Your task to perform on an android device: Search for vegetarian restaurants on Maps Image 0: 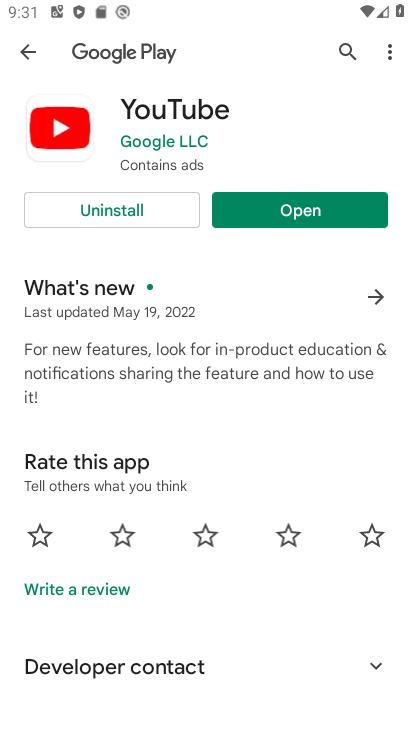
Step 0: press home button
Your task to perform on an android device: Search for vegetarian restaurants on Maps Image 1: 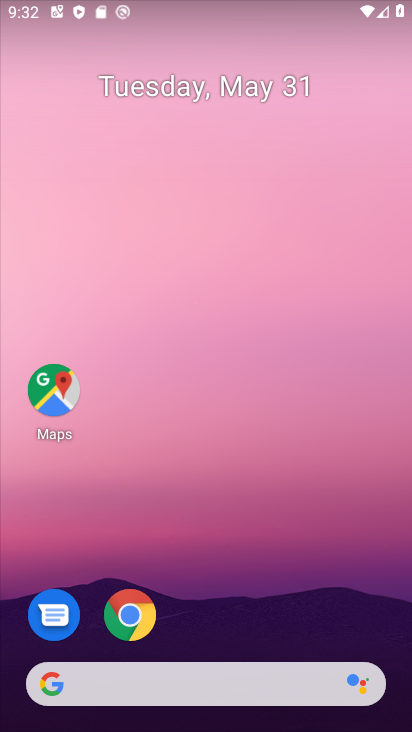
Step 1: click (55, 389)
Your task to perform on an android device: Search for vegetarian restaurants on Maps Image 2: 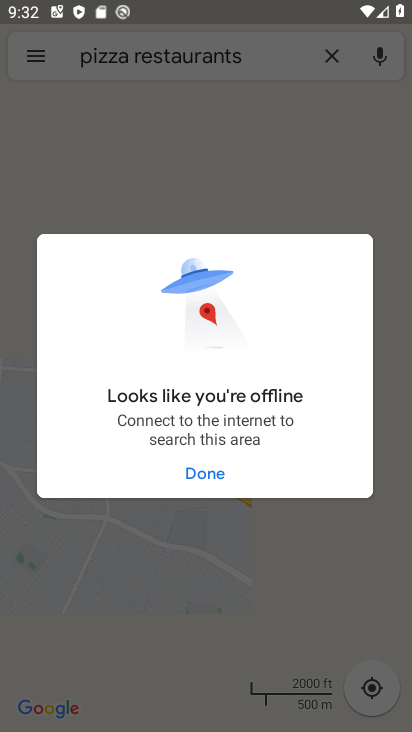
Step 2: click (212, 464)
Your task to perform on an android device: Search for vegetarian restaurants on Maps Image 3: 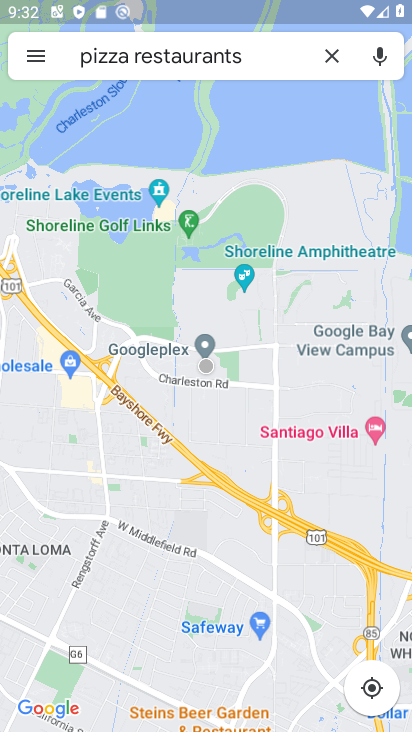
Step 3: press home button
Your task to perform on an android device: Search for vegetarian restaurants on Maps Image 4: 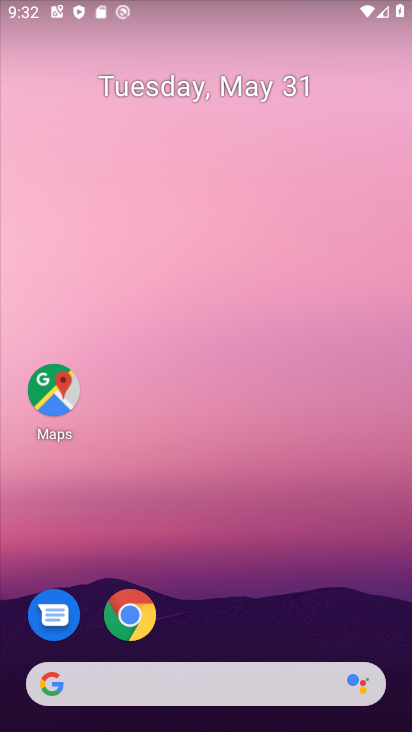
Step 4: drag from (280, 625) to (272, 117)
Your task to perform on an android device: Search for vegetarian restaurants on Maps Image 5: 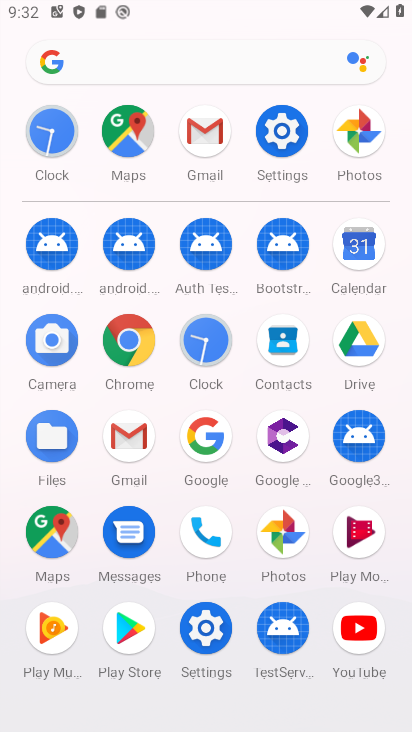
Step 5: click (207, 628)
Your task to perform on an android device: Search for vegetarian restaurants on Maps Image 6: 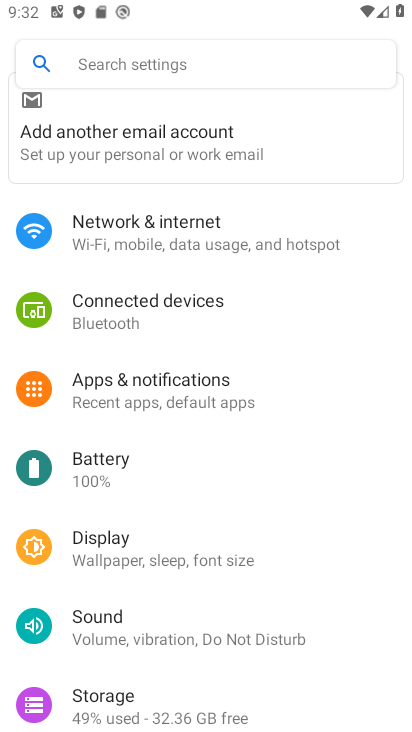
Step 6: click (160, 222)
Your task to perform on an android device: Search for vegetarian restaurants on Maps Image 7: 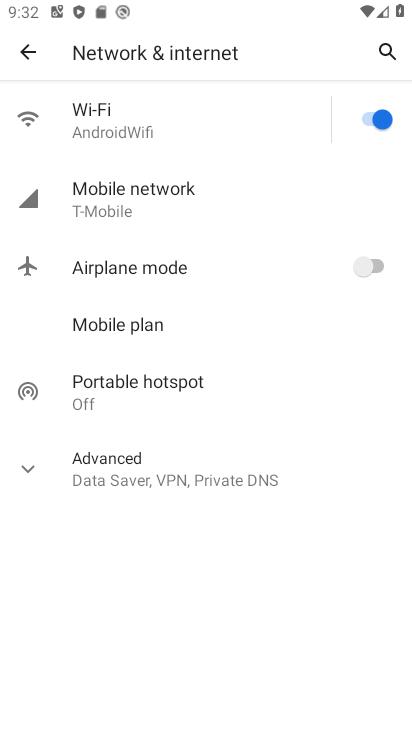
Step 7: press home button
Your task to perform on an android device: Search for vegetarian restaurants on Maps Image 8: 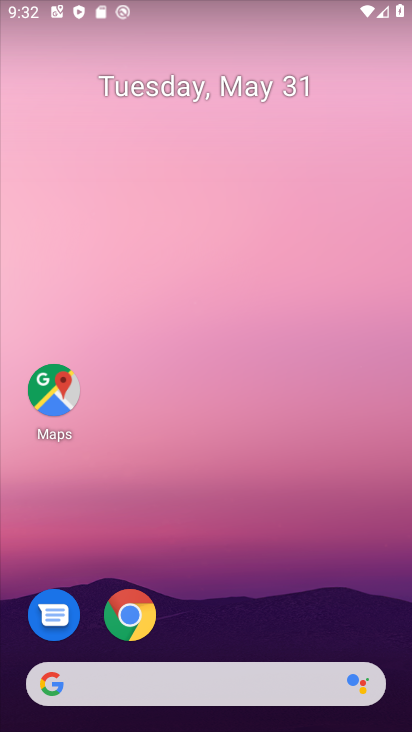
Step 8: click (60, 391)
Your task to perform on an android device: Search for vegetarian restaurants on Maps Image 9: 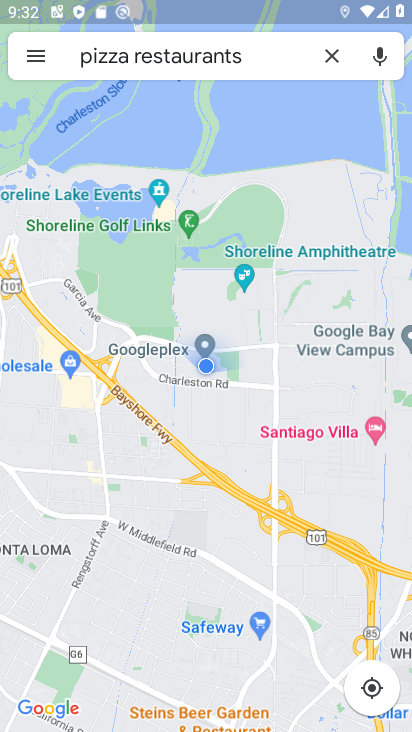
Step 9: click (329, 54)
Your task to perform on an android device: Search for vegetarian restaurants on Maps Image 10: 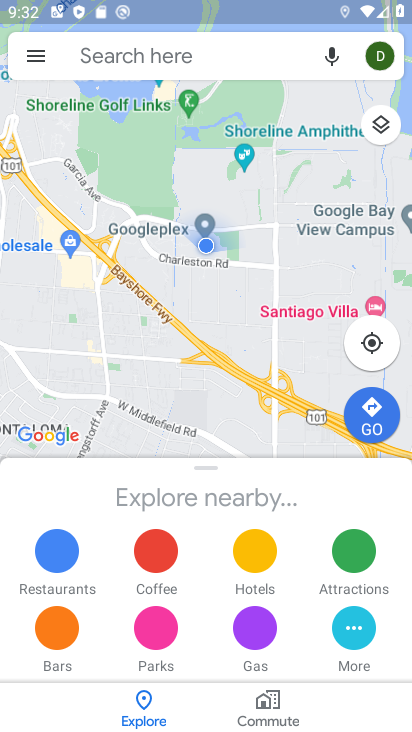
Step 10: click (140, 50)
Your task to perform on an android device: Search for vegetarian restaurants on Maps Image 11: 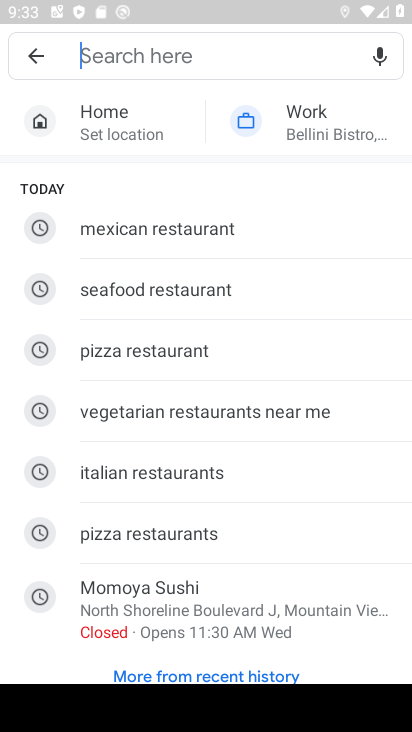
Step 11: type "vegetarian resturants"
Your task to perform on an android device: Search for vegetarian restaurants on Maps Image 12: 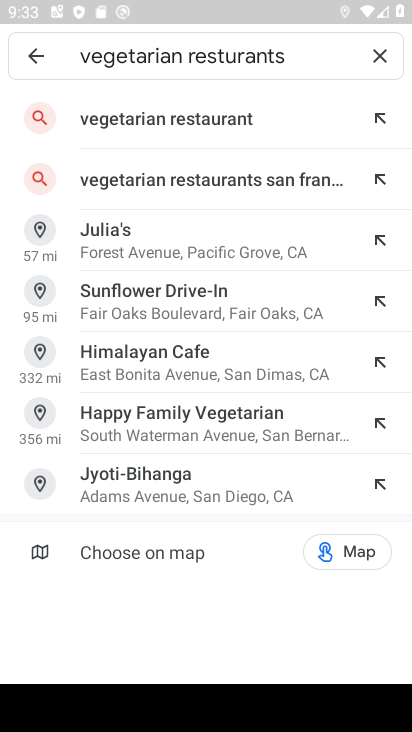
Step 12: click (125, 118)
Your task to perform on an android device: Search for vegetarian restaurants on Maps Image 13: 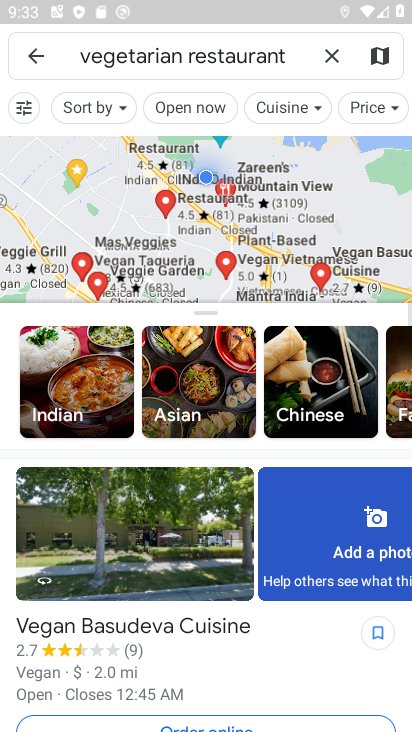
Step 13: task complete